Your task to perform on an android device: delete browsing data in the chrome app Image 0: 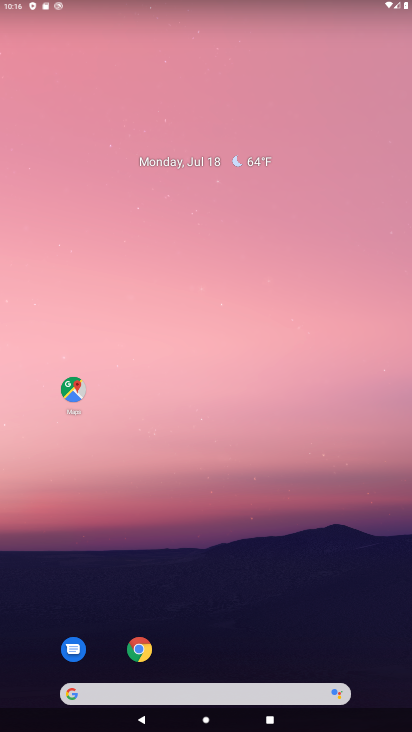
Step 0: click (147, 652)
Your task to perform on an android device: delete browsing data in the chrome app Image 1: 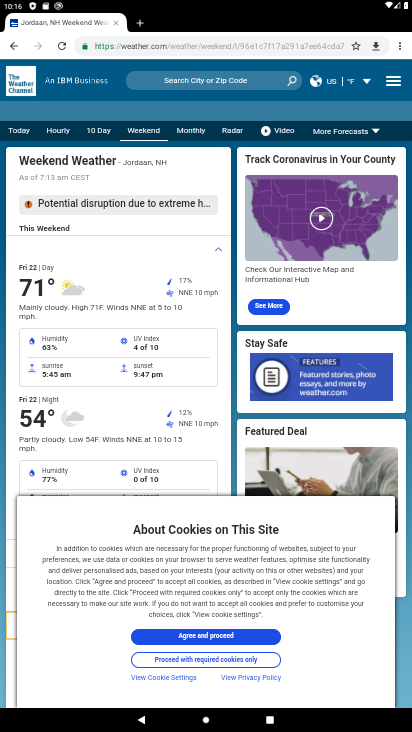
Step 1: drag from (400, 49) to (327, 315)
Your task to perform on an android device: delete browsing data in the chrome app Image 2: 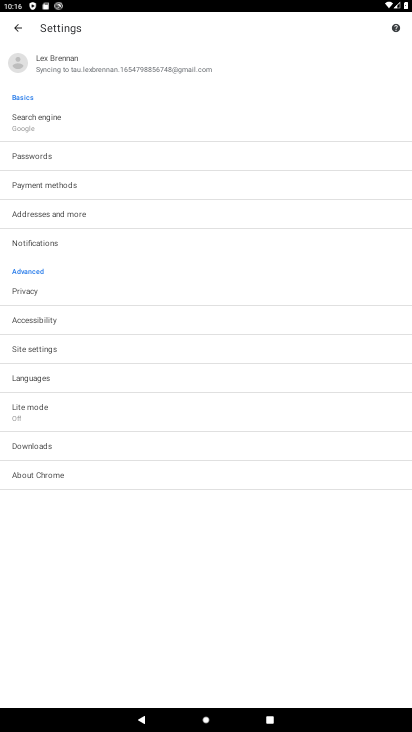
Step 2: click (104, 301)
Your task to perform on an android device: delete browsing data in the chrome app Image 3: 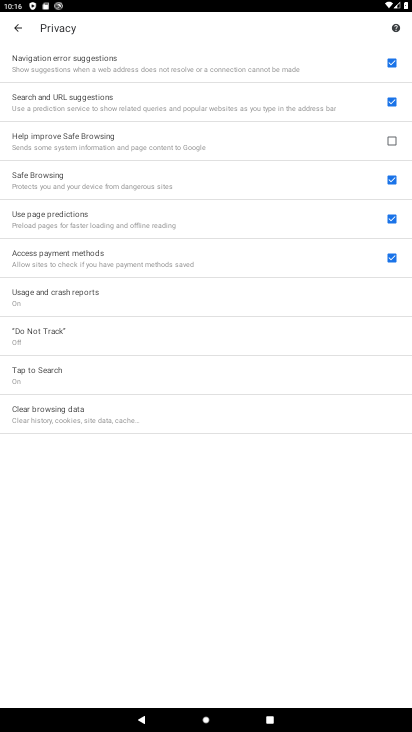
Step 3: click (178, 426)
Your task to perform on an android device: delete browsing data in the chrome app Image 4: 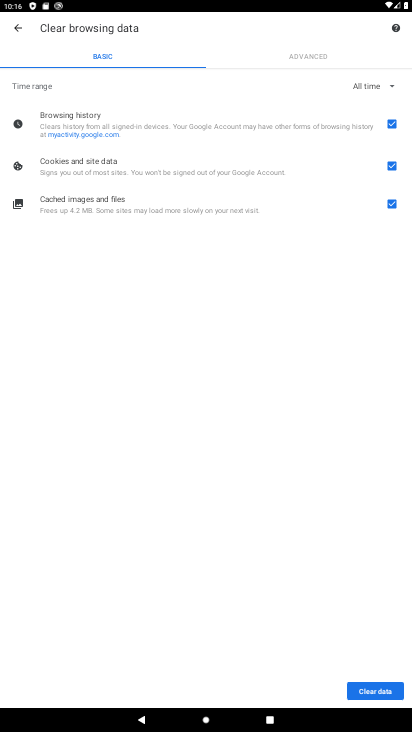
Step 4: click (382, 684)
Your task to perform on an android device: delete browsing data in the chrome app Image 5: 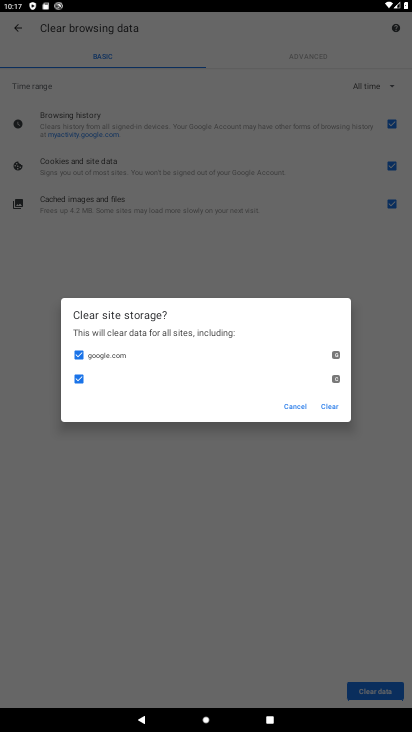
Step 5: click (335, 407)
Your task to perform on an android device: delete browsing data in the chrome app Image 6: 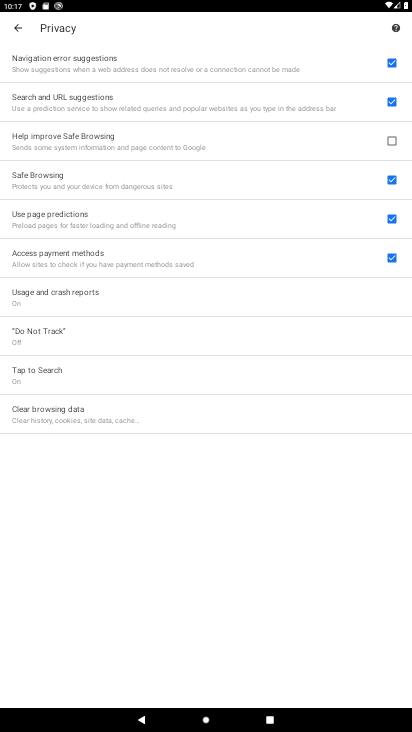
Step 6: task complete